Your task to perform on an android device: Go to Amazon Image 0: 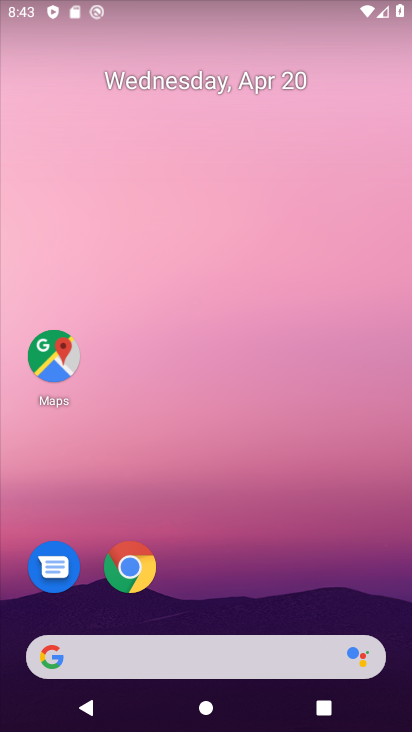
Step 0: click (142, 581)
Your task to perform on an android device: Go to Amazon Image 1: 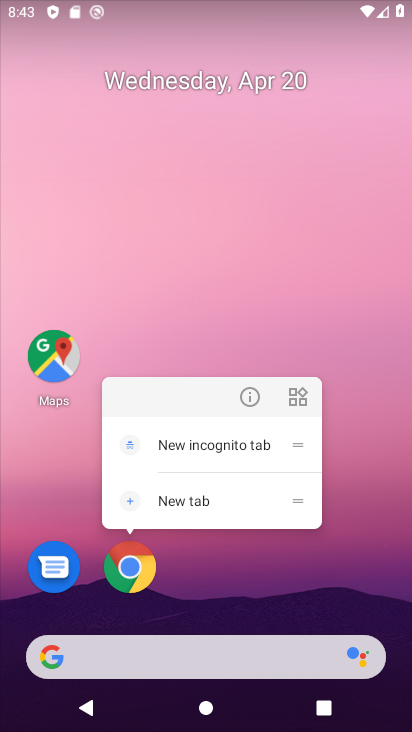
Step 1: click (133, 568)
Your task to perform on an android device: Go to Amazon Image 2: 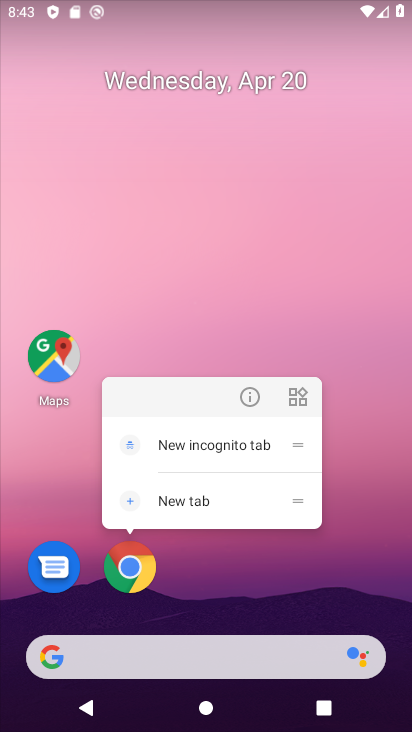
Step 2: click (126, 573)
Your task to perform on an android device: Go to Amazon Image 3: 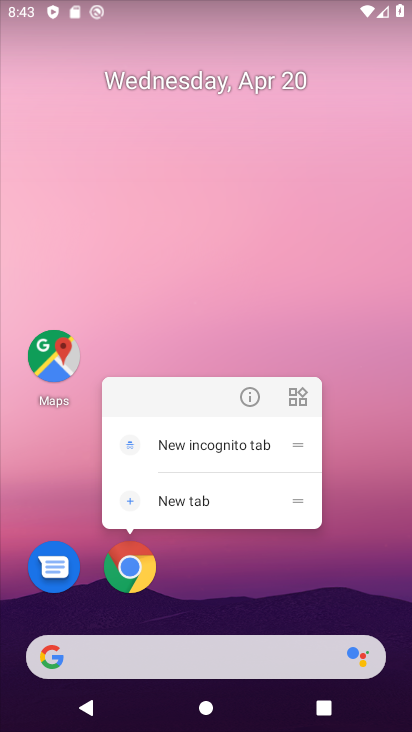
Step 3: click (132, 581)
Your task to perform on an android device: Go to Amazon Image 4: 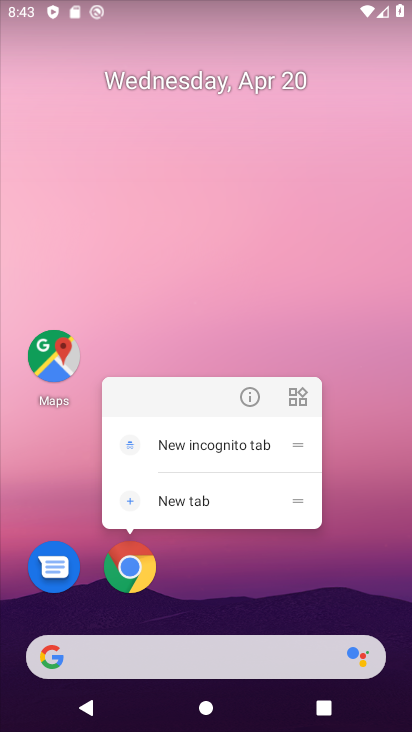
Step 4: click (135, 582)
Your task to perform on an android device: Go to Amazon Image 5: 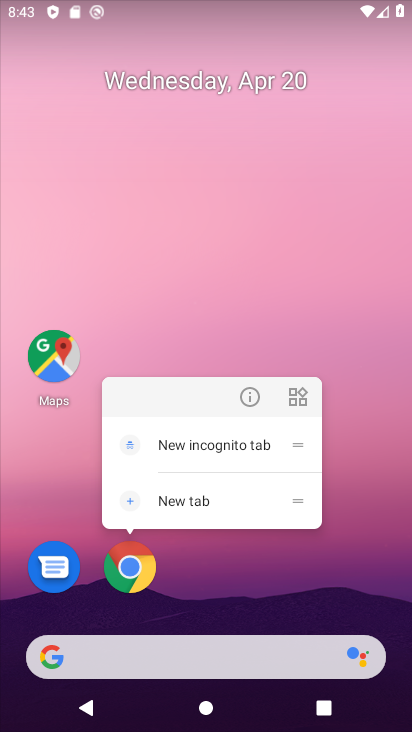
Step 5: click (140, 575)
Your task to perform on an android device: Go to Amazon Image 6: 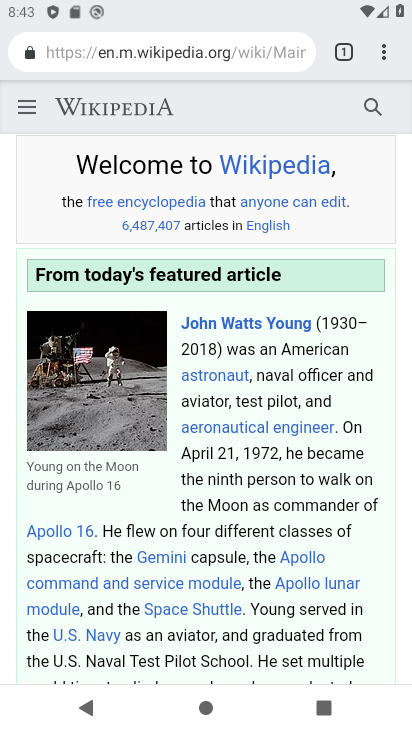
Step 6: press back button
Your task to perform on an android device: Go to Amazon Image 7: 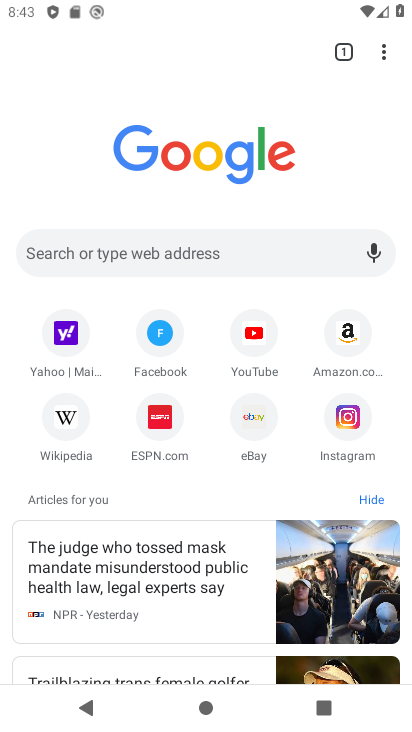
Step 7: click (349, 332)
Your task to perform on an android device: Go to Amazon Image 8: 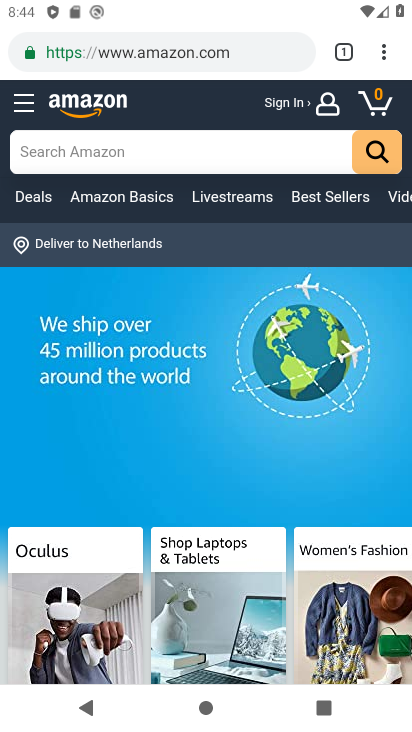
Step 8: task complete